Your task to perform on an android device: open device folders in google photos Image 0: 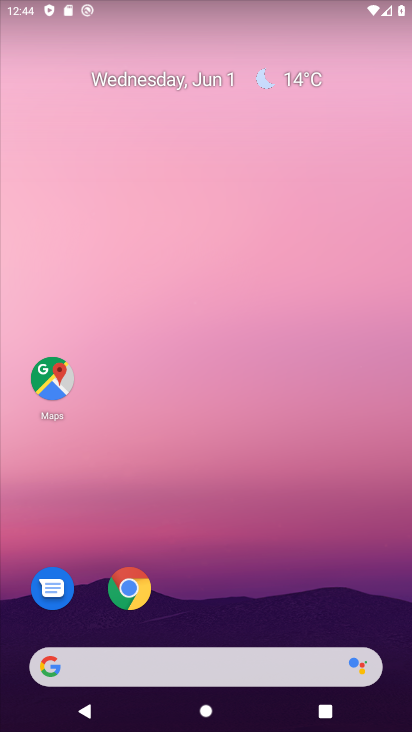
Step 0: drag from (336, 424) to (298, 2)
Your task to perform on an android device: open device folders in google photos Image 1: 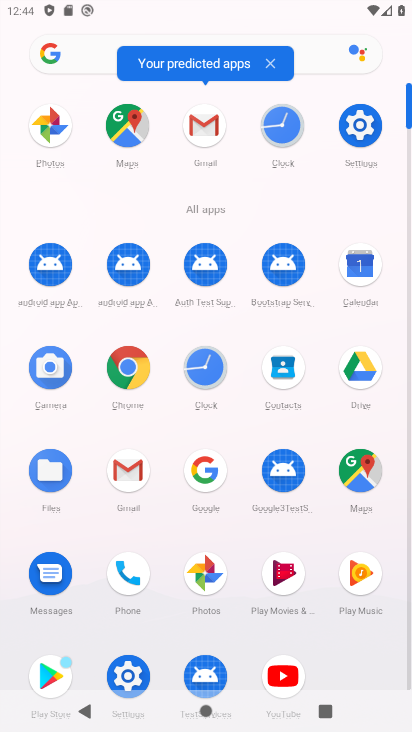
Step 1: click (189, 577)
Your task to perform on an android device: open device folders in google photos Image 2: 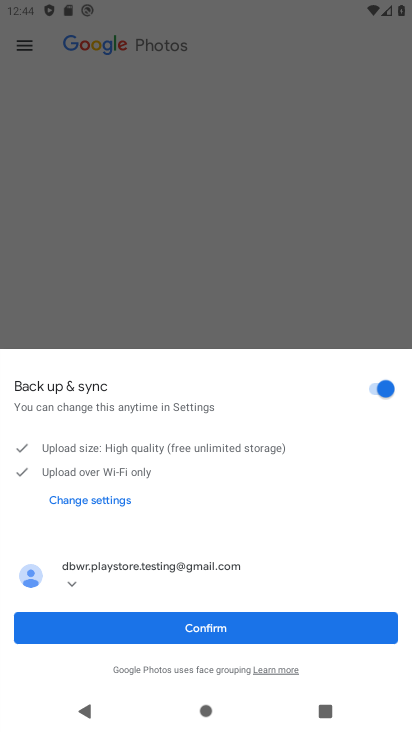
Step 2: click (300, 614)
Your task to perform on an android device: open device folders in google photos Image 3: 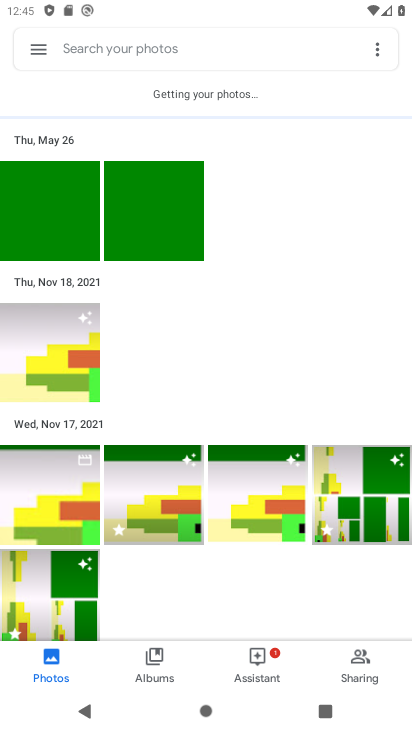
Step 3: click (34, 51)
Your task to perform on an android device: open device folders in google photos Image 4: 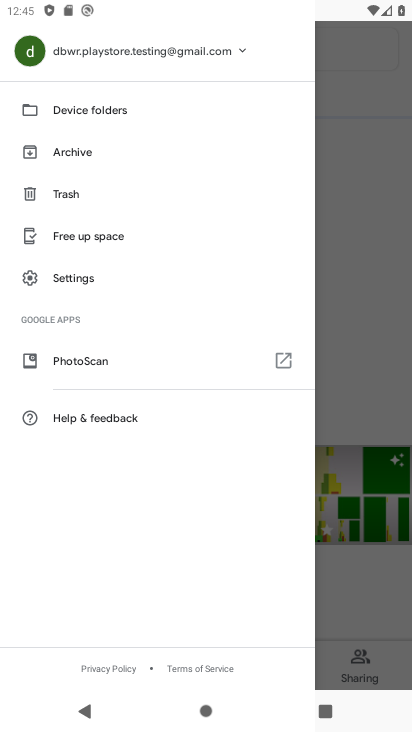
Step 4: click (112, 115)
Your task to perform on an android device: open device folders in google photos Image 5: 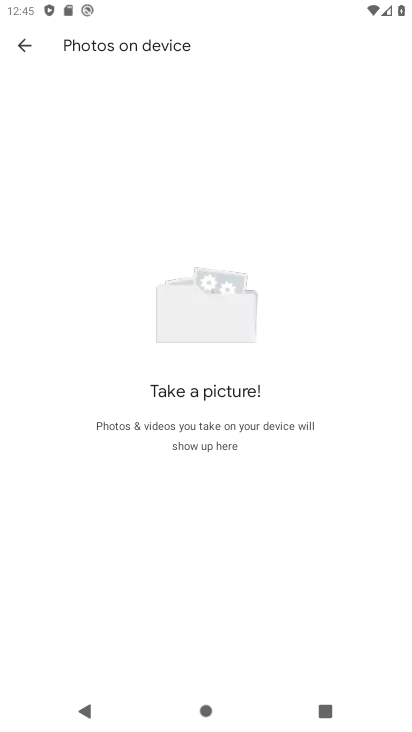
Step 5: task complete